Your task to perform on an android device: Search for vegetarian restaurants on Maps Image 0: 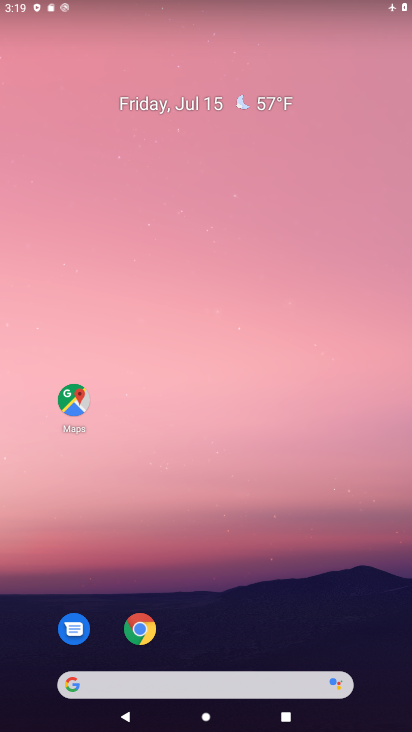
Step 0: click (130, 109)
Your task to perform on an android device: Search for vegetarian restaurants on Maps Image 1: 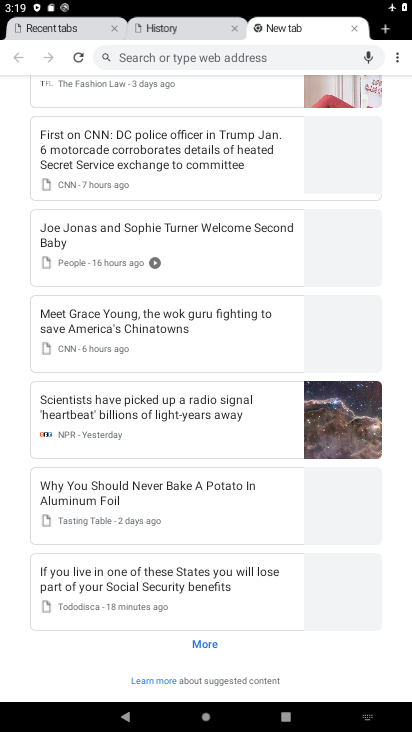
Step 1: press back button
Your task to perform on an android device: Search for vegetarian restaurants on Maps Image 2: 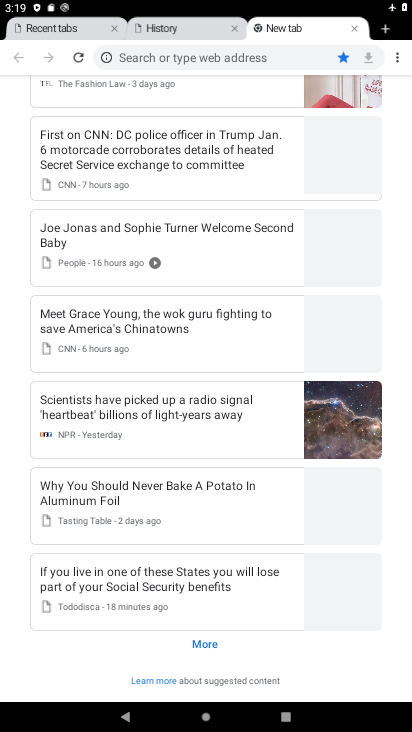
Step 2: press home button
Your task to perform on an android device: Search for vegetarian restaurants on Maps Image 3: 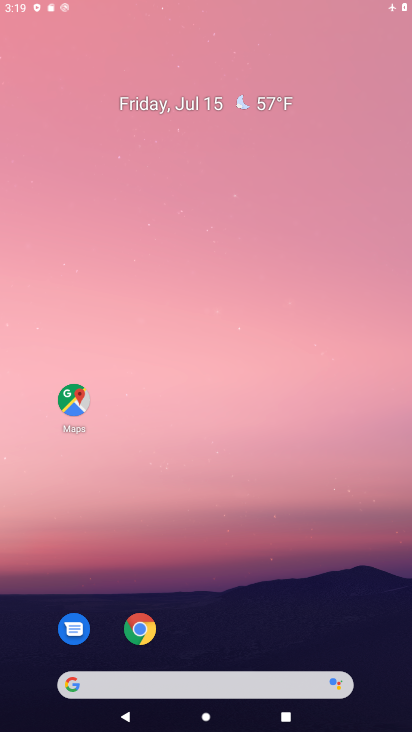
Step 3: press home button
Your task to perform on an android device: Search for vegetarian restaurants on Maps Image 4: 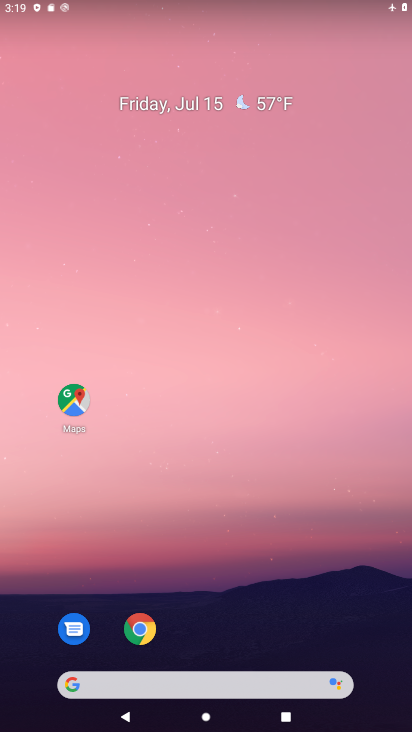
Step 4: drag from (173, 238) to (173, 181)
Your task to perform on an android device: Search for vegetarian restaurants on Maps Image 5: 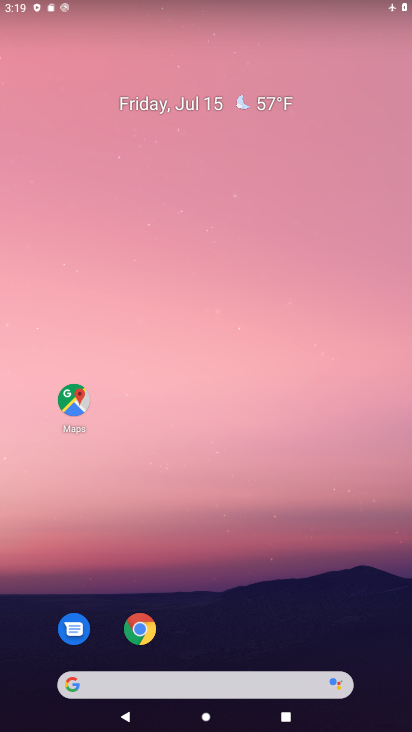
Step 5: drag from (270, 700) to (229, 413)
Your task to perform on an android device: Search for vegetarian restaurants on Maps Image 6: 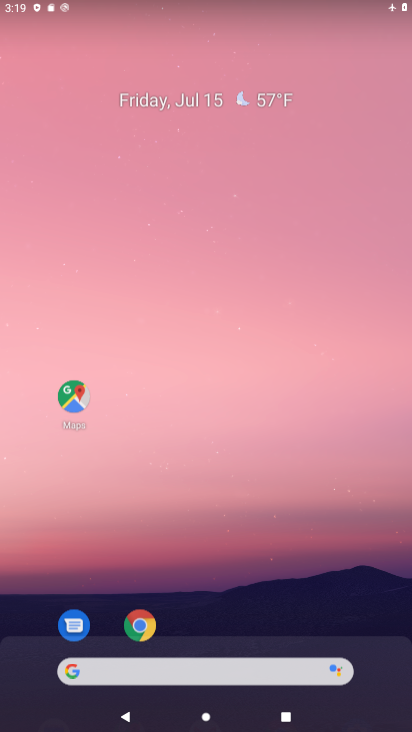
Step 6: drag from (283, 646) to (240, 236)
Your task to perform on an android device: Search for vegetarian restaurants on Maps Image 7: 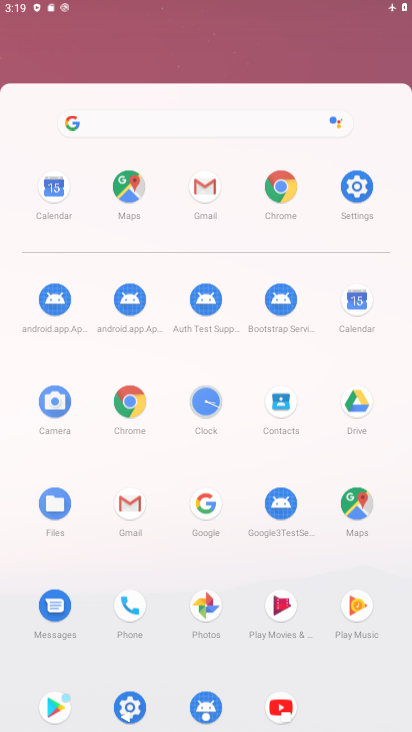
Step 7: drag from (276, 590) to (213, 120)
Your task to perform on an android device: Search for vegetarian restaurants on Maps Image 8: 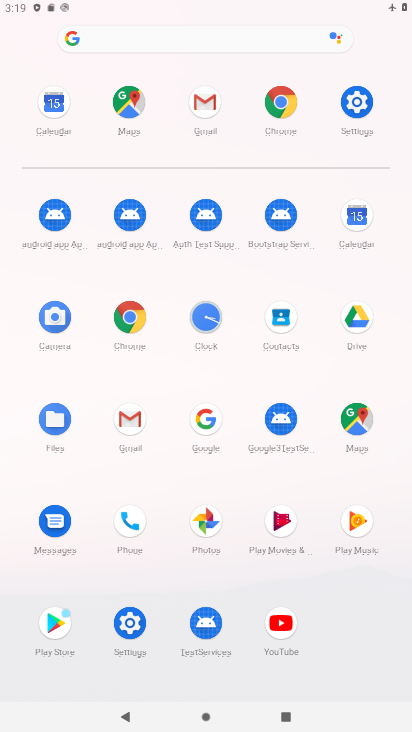
Step 8: drag from (315, 553) to (295, 210)
Your task to perform on an android device: Search for vegetarian restaurants on Maps Image 9: 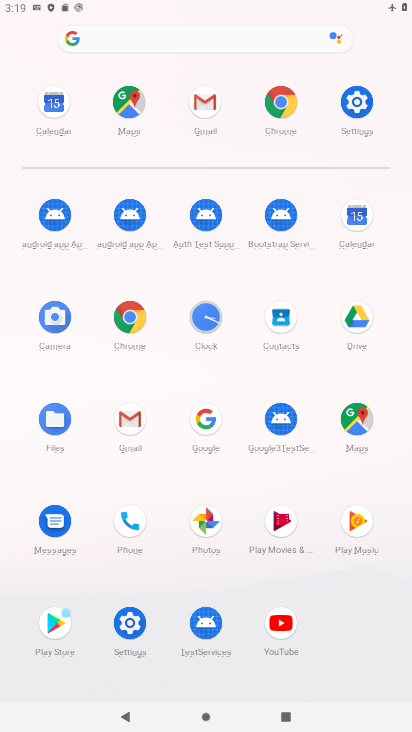
Step 9: click (363, 421)
Your task to perform on an android device: Search for vegetarian restaurants on Maps Image 10: 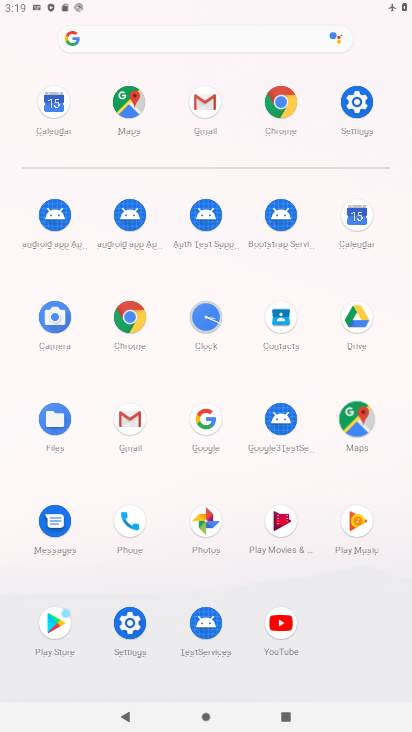
Step 10: click (365, 420)
Your task to perform on an android device: Search for vegetarian restaurants on Maps Image 11: 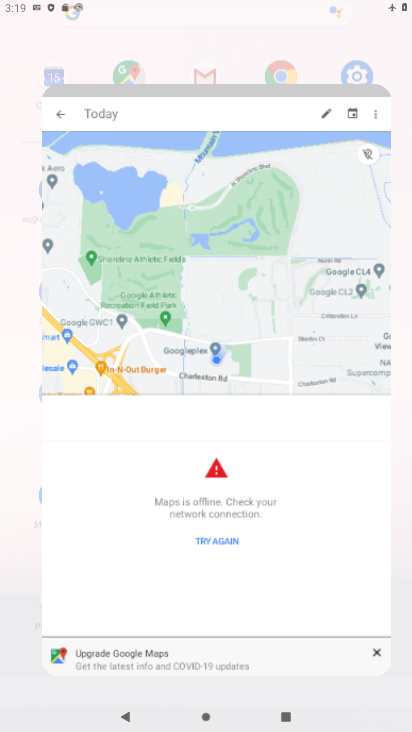
Step 11: click (371, 422)
Your task to perform on an android device: Search for vegetarian restaurants on Maps Image 12: 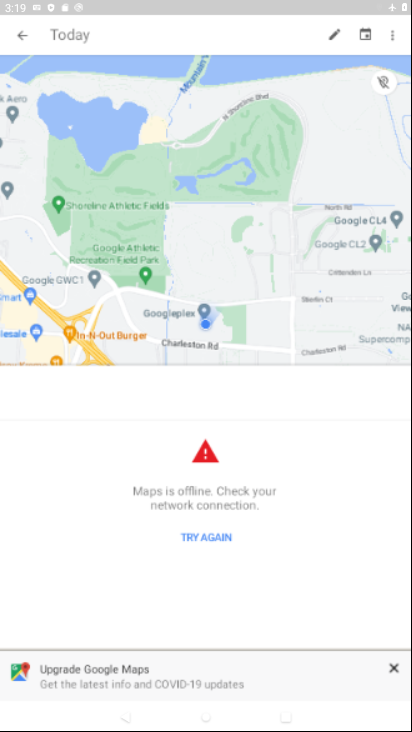
Step 12: click (373, 424)
Your task to perform on an android device: Search for vegetarian restaurants on Maps Image 13: 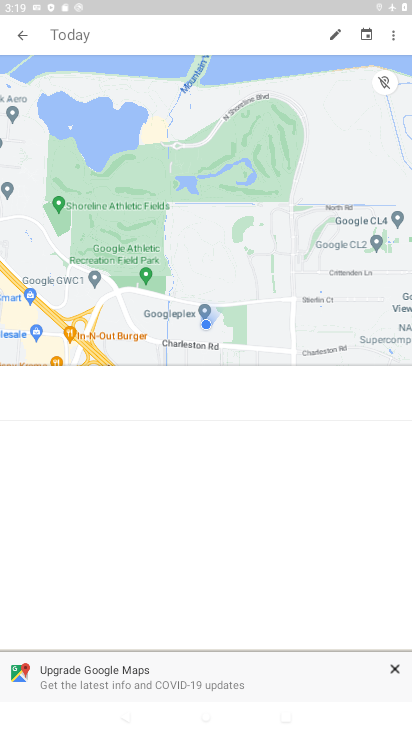
Step 13: click (76, 42)
Your task to perform on an android device: Search for vegetarian restaurants on Maps Image 14: 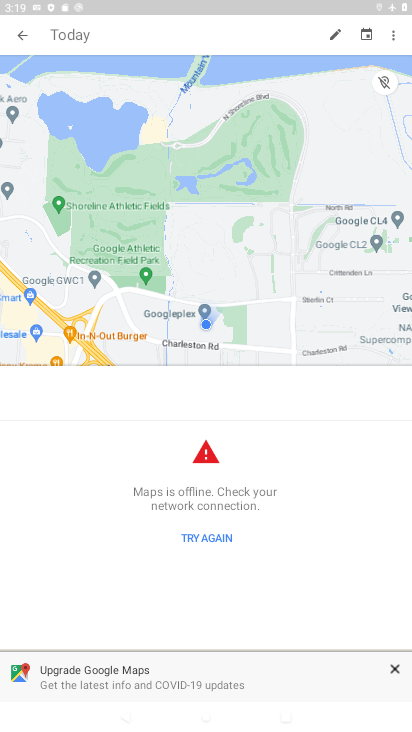
Step 14: click (75, 44)
Your task to perform on an android device: Search for vegetarian restaurants on Maps Image 15: 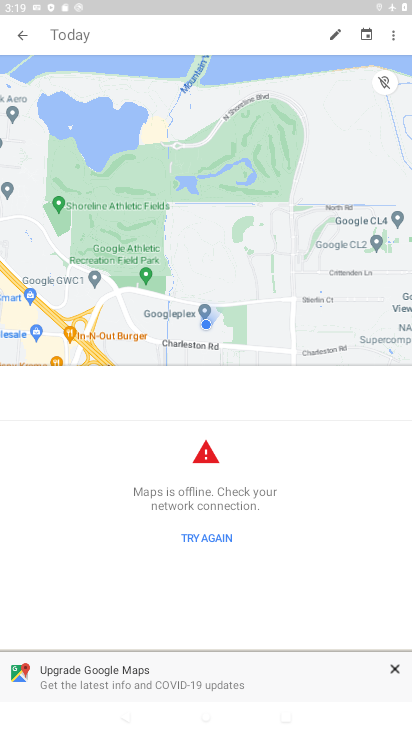
Step 15: click (68, 33)
Your task to perform on an android device: Search for vegetarian restaurants on Maps Image 16: 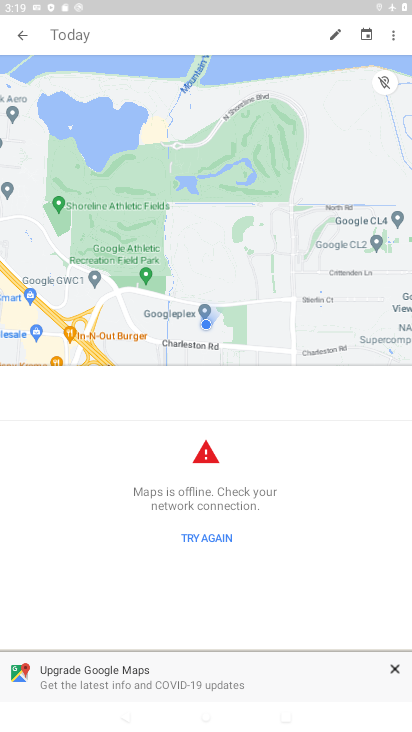
Step 16: click (67, 32)
Your task to perform on an android device: Search for vegetarian restaurants on Maps Image 17: 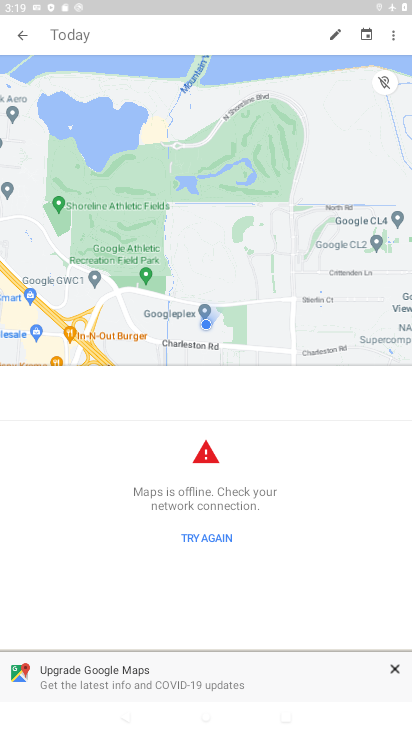
Step 17: click (23, 30)
Your task to perform on an android device: Search for vegetarian restaurants on Maps Image 18: 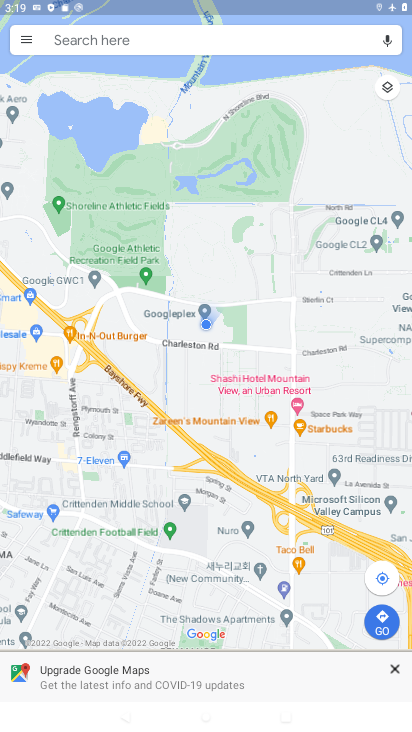
Step 18: click (91, 33)
Your task to perform on an android device: Search for vegetarian restaurants on Maps Image 19: 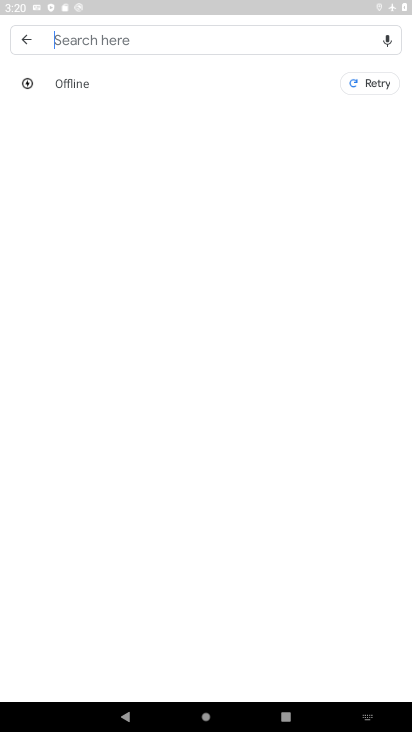
Step 19: type "vegetarian restaurants"
Your task to perform on an android device: Search for vegetarian restaurants on Maps Image 20: 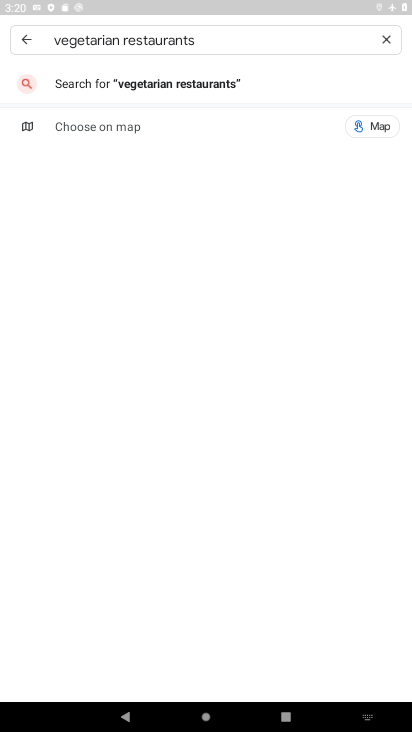
Step 20: click (192, 86)
Your task to perform on an android device: Search for vegetarian restaurants on Maps Image 21: 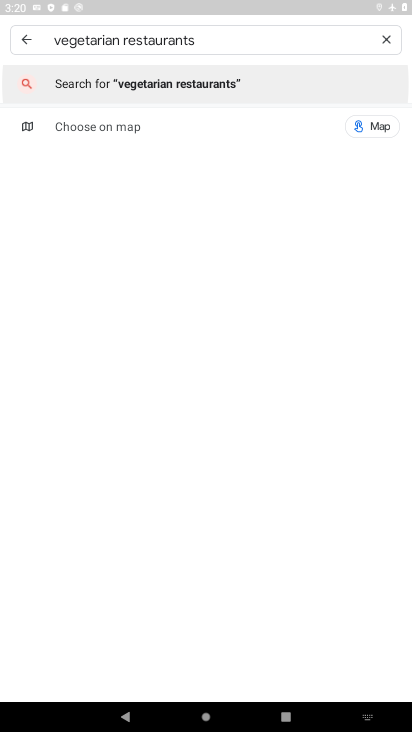
Step 21: click (192, 85)
Your task to perform on an android device: Search for vegetarian restaurants on Maps Image 22: 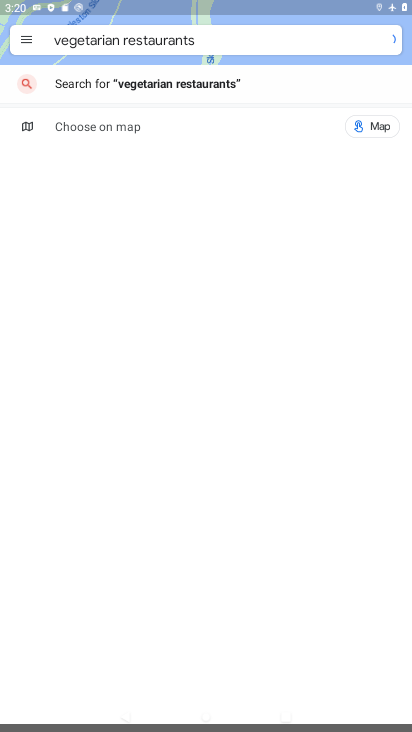
Step 22: click (192, 85)
Your task to perform on an android device: Search for vegetarian restaurants on Maps Image 23: 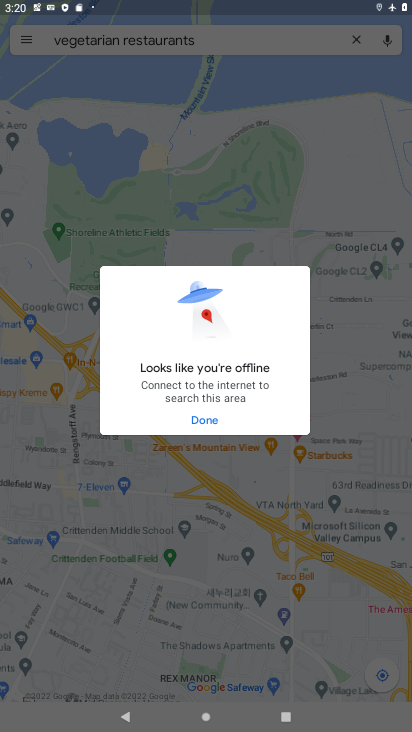
Step 23: task complete